Your task to perform on an android device: Go to Google Image 0: 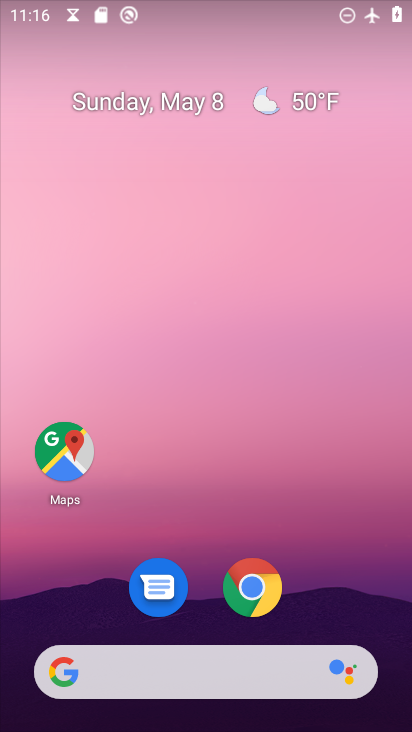
Step 0: drag from (337, 514) to (274, 158)
Your task to perform on an android device: Go to Google Image 1: 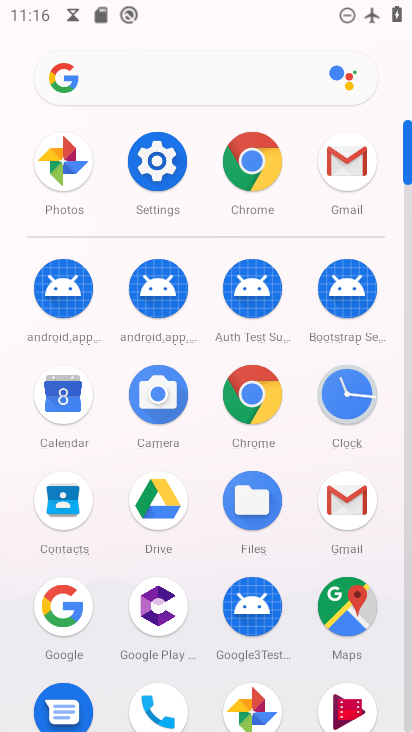
Step 1: click (74, 613)
Your task to perform on an android device: Go to Google Image 2: 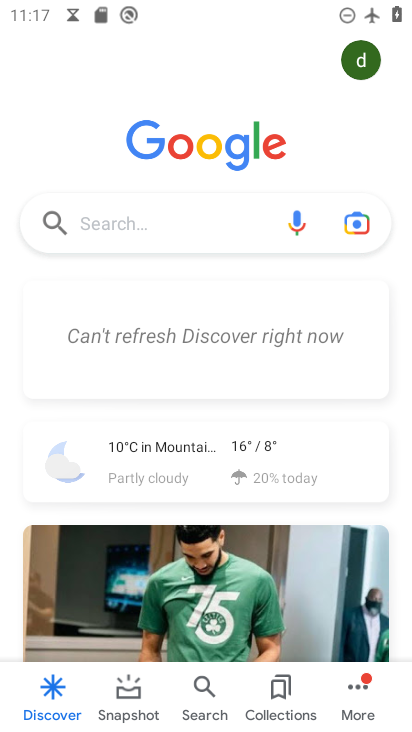
Step 2: task complete